Your task to perform on an android device: delete browsing data in the chrome app Image 0: 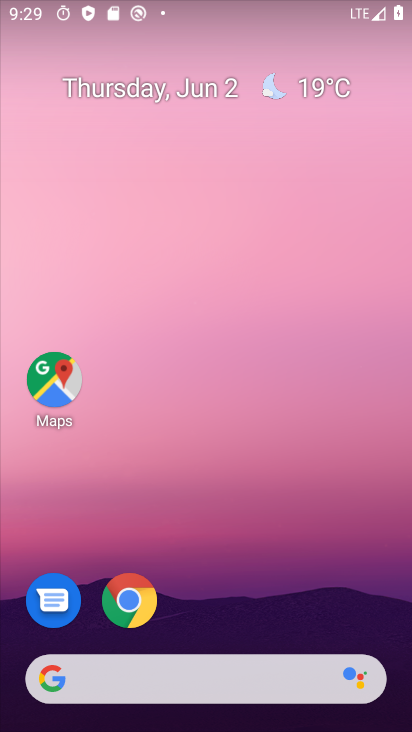
Step 0: click (133, 589)
Your task to perform on an android device: delete browsing data in the chrome app Image 1: 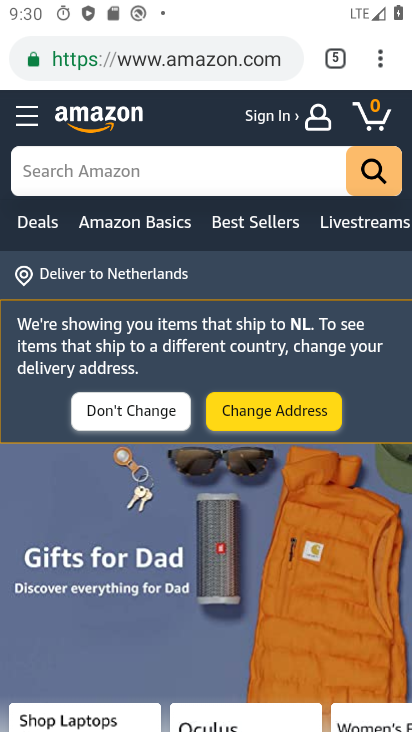
Step 1: click (375, 54)
Your task to perform on an android device: delete browsing data in the chrome app Image 2: 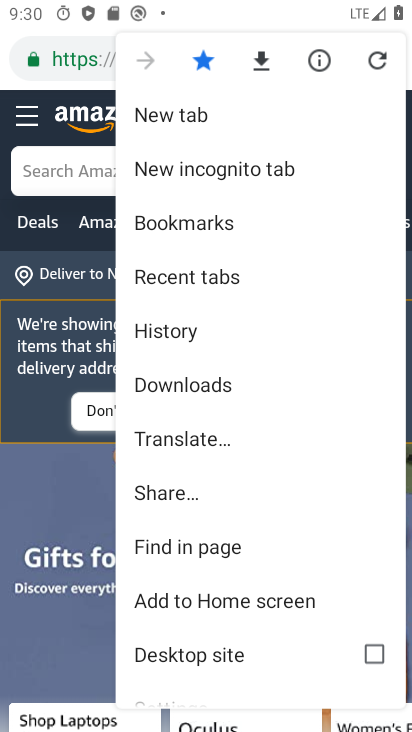
Step 2: click (202, 329)
Your task to perform on an android device: delete browsing data in the chrome app Image 3: 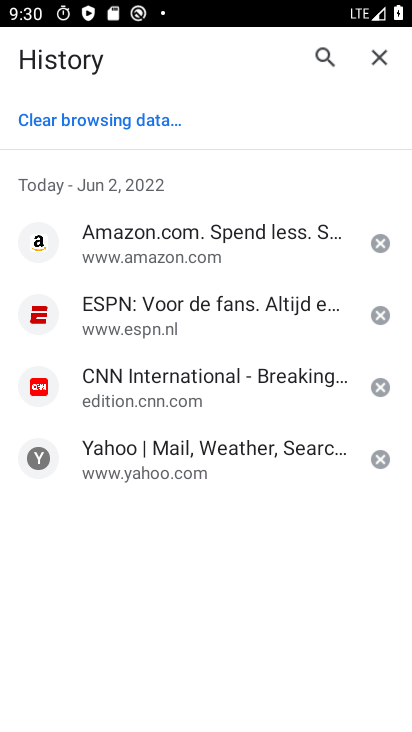
Step 3: click (115, 121)
Your task to perform on an android device: delete browsing data in the chrome app Image 4: 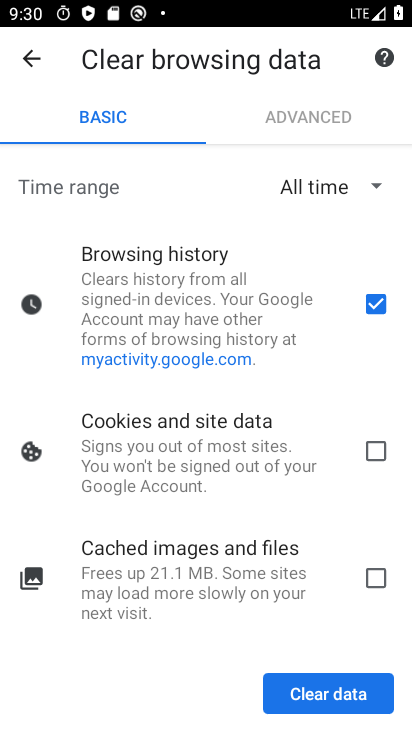
Step 4: click (381, 462)
Your task to perform on an android device: delete browsing data in the chrome app Image 5: 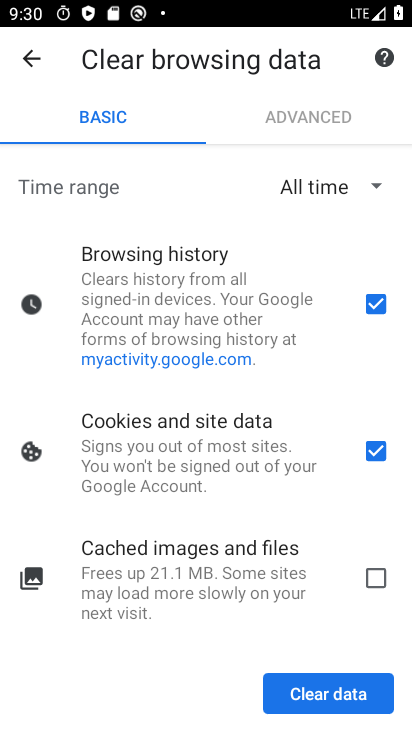
Step 5: click (381, 588)
Your task to perform on an android device: delete browsing data in the chrome app Image 6: 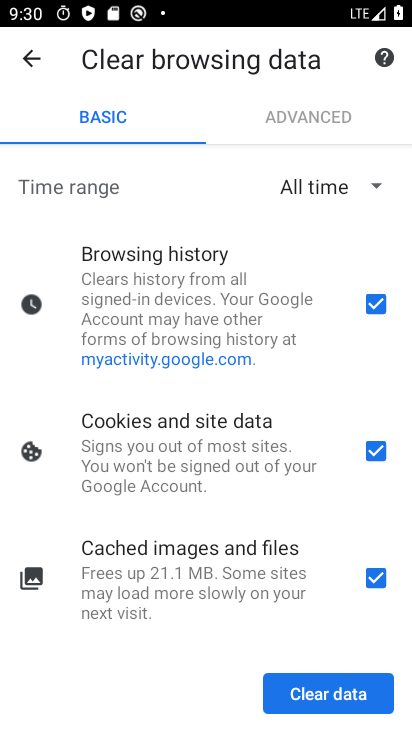
Step 6: click (358, 694)
Your task to perform on an android device: delete browsing data in the chrome app Image 7: 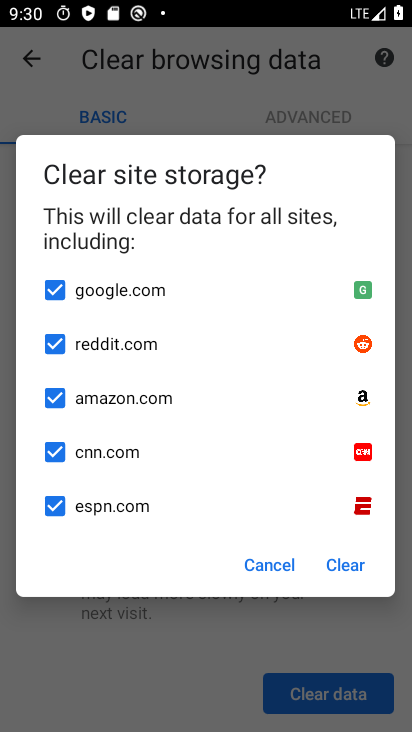
Step 7: task complete